Your task to perform on an android device: toggle javascript in the chrome app Image 0: 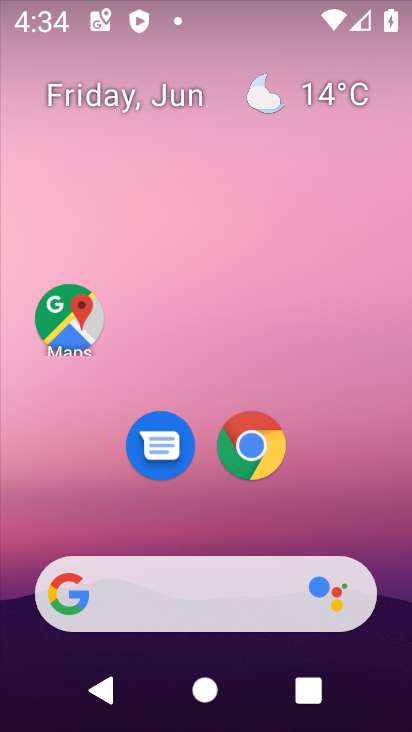
Step 0: click (272, 446)
Your task to perform on an android device: toggle javascript in the chrome app Image 1: 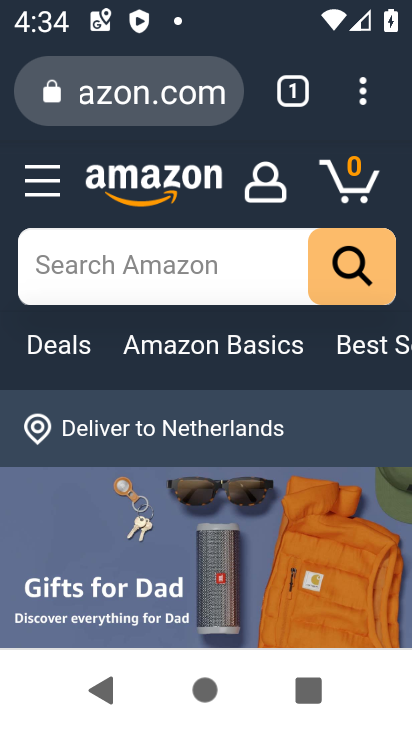
Step 1: click (363, 90)
Your task to perform on an android device: toggle javascript in the chrome app Image 2: 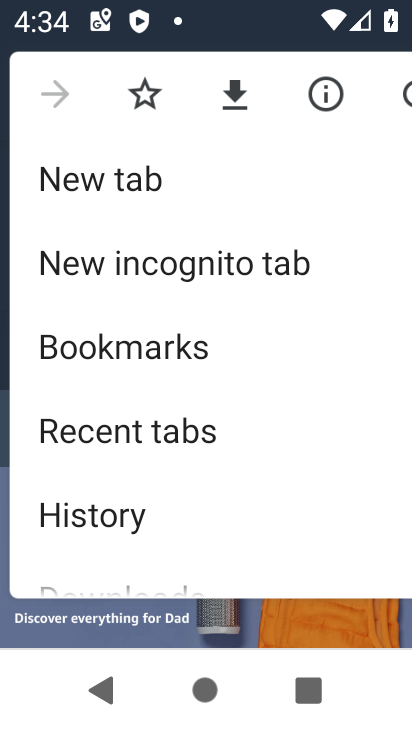
Step 2: drag from (155, 553) to (139, 184)
Your task to perform on an android device: toggle javascript in the chrome app Image 3: 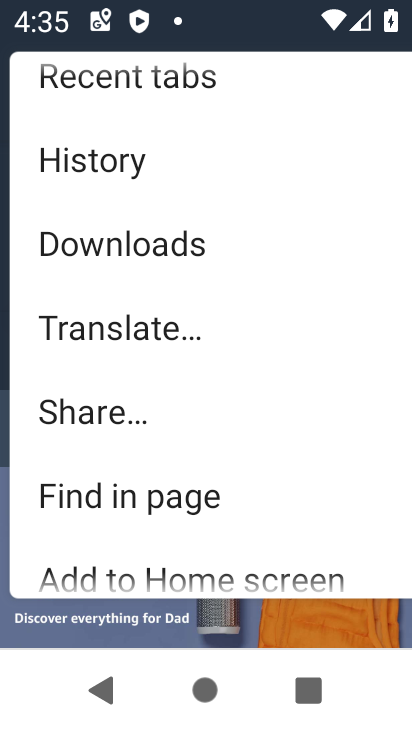
Step 3: drag from (172, 556) to (120, 171)
Your task to perform on an android device: toggle javascript in the chrome app Image 4: 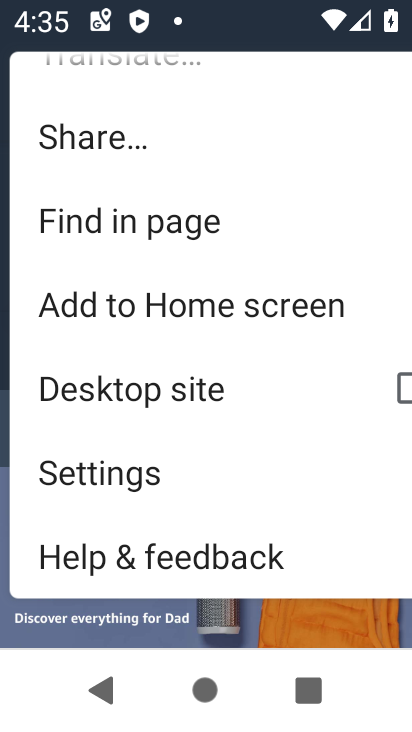
Step 4: click (165, 480)
Your task to perform on an android device: toggle javascript in the chrome app Image 5: 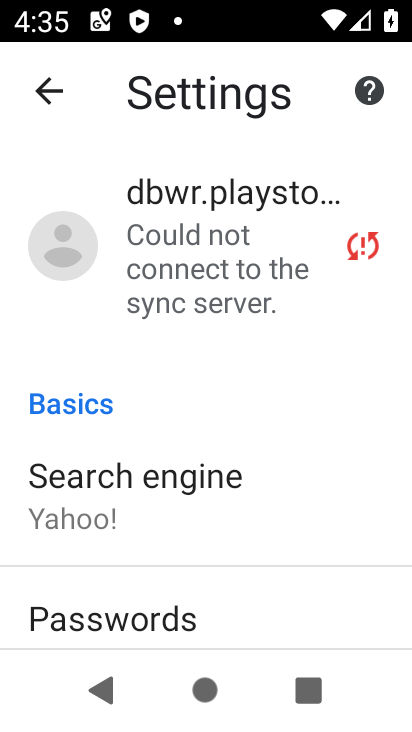
Step 5: drag from (211, 609) to (199, 199)
Your task to perform on an android device: toggle javascript in the chrome app Image 6: 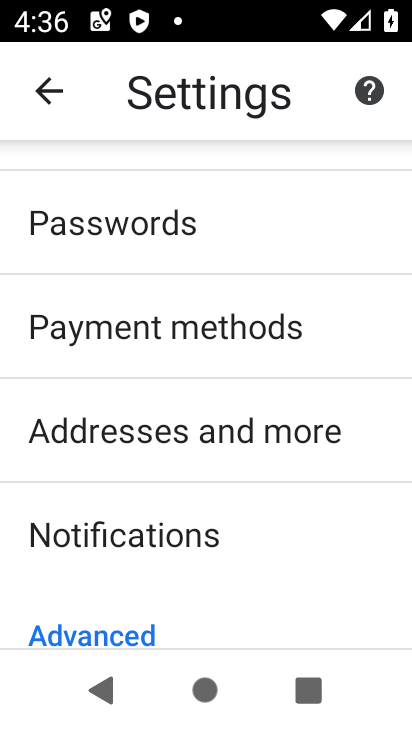
Step 6: drag from (183, 583) to (166, 255)
Your task to perform on an android device: toggle javascript in the chrome app Image 7: 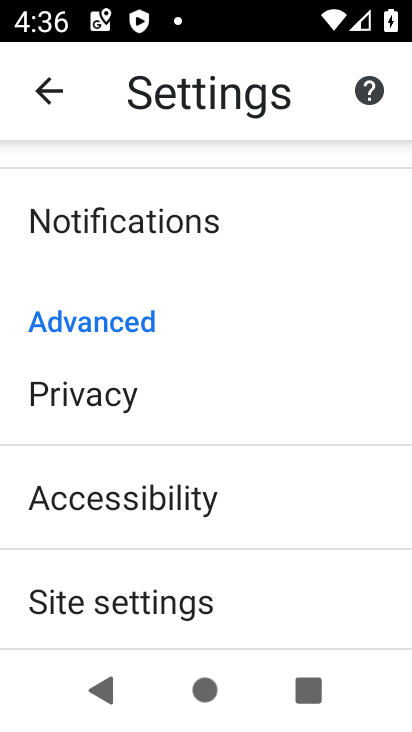
Step 7: drag from (213, 572) to (205, 311)
Your task to perform on an android device: toggle javascript in the chrome app Image 8: 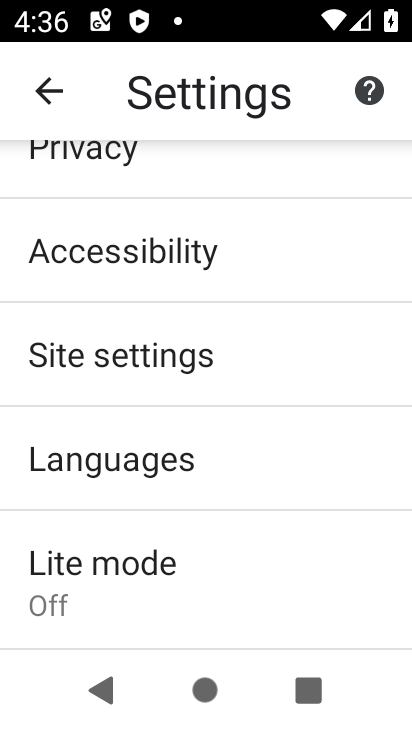
Step 8: click (210, 342)
Your task to perform on an android device: toggle javascript in the chrome app Image 9: 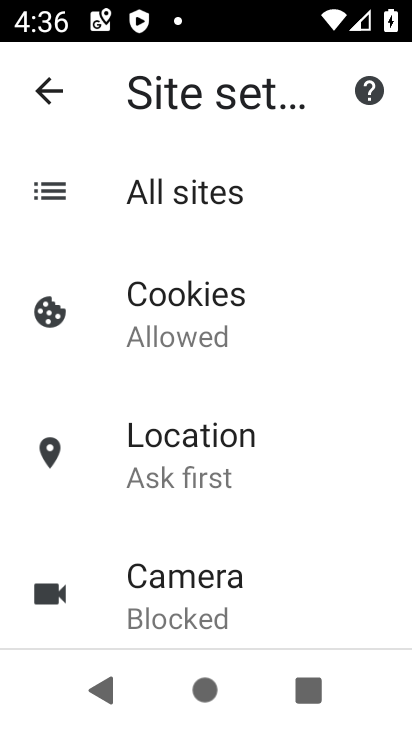
Step 9: drag from (218, 580) to (198, 296)
Your task to perform on an android device: toggle javascript in the chrome app Image 10: 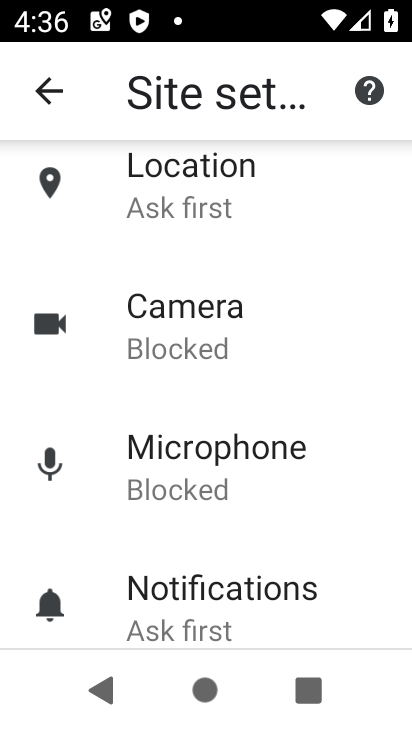
Step 10: drag from (227, 516) to (201, 182)
Your task to perform on an android device: toggle javascript in the chrome app Image 11: 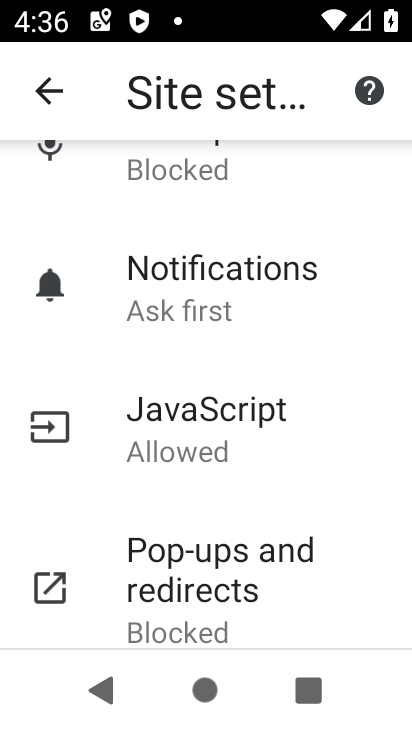
Step 11: click (203, 432)
Your task to perform on an android device: toggle javascript in the chrome app Image 12: 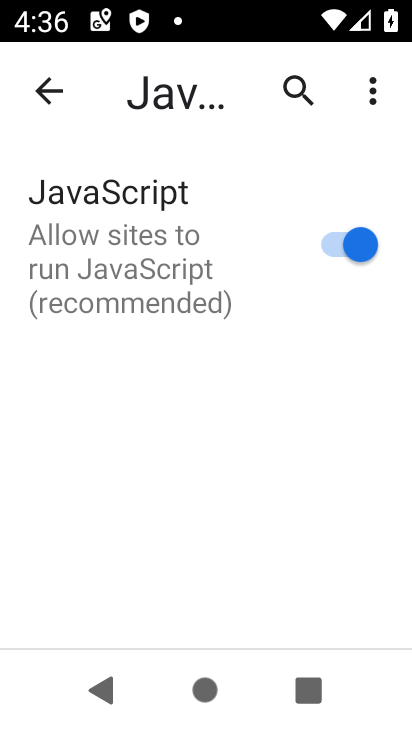
Step 12: click (344, 227)
Your task to perform on an android device: toggle javascript in the chrome app Image 13: 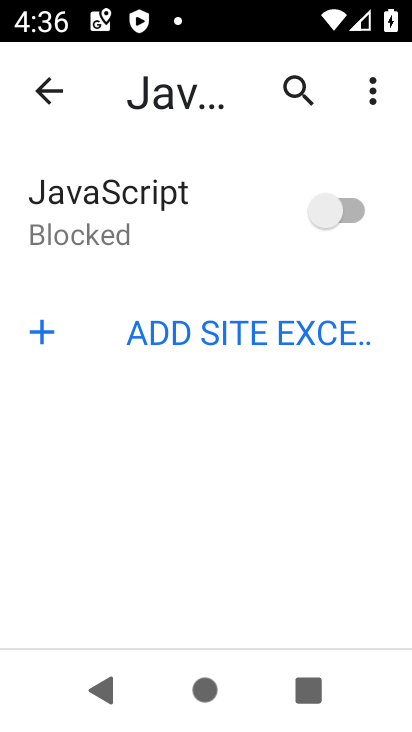
Step 13: task complete